Your task to perform on an android device: turn on showing notifications on the lock screen Image 0: 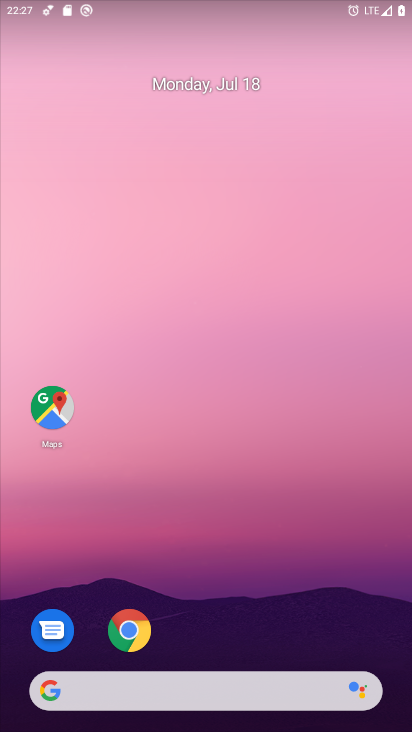
Step 0: drag from (207, 557) to (219, 22)
Your task to perform on an android device: turn on showing notifications on the lock screen Image 1: 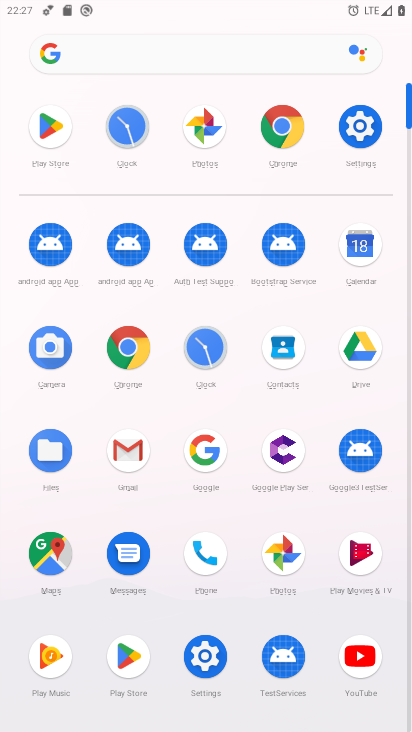
Step 1: click (356, 108)
Your task to perform on an android device: turn on showing notifications on the lock screen Image 2: 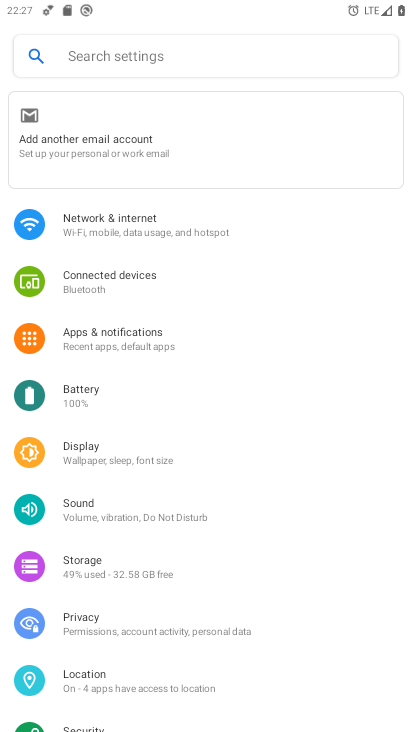
Step 2: click (125, 325)
Your task to perform on an android device: turn on showing notifications on the lock screen Image 3: 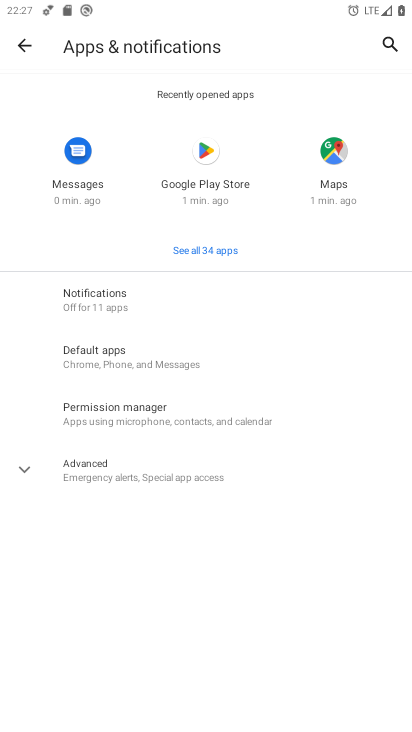
Step 3: click (181, 324)
Your task to perform on an android device: turn on showing notifications on the lock screen Image 4: 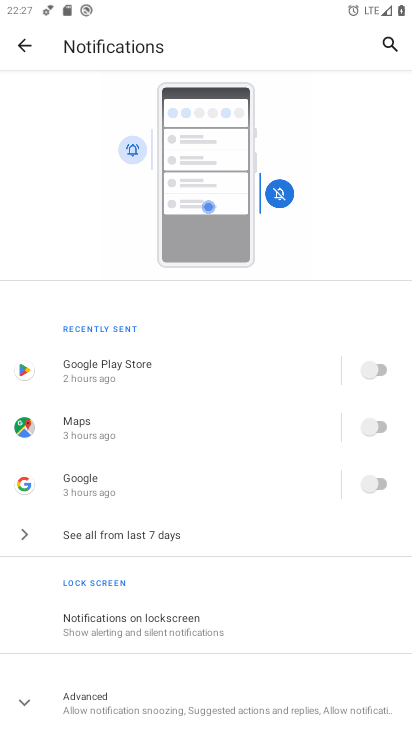
Step 4: click (164, 612)
Your task to perform on an android device: turn on showing notifications on the lock screen Image 5: 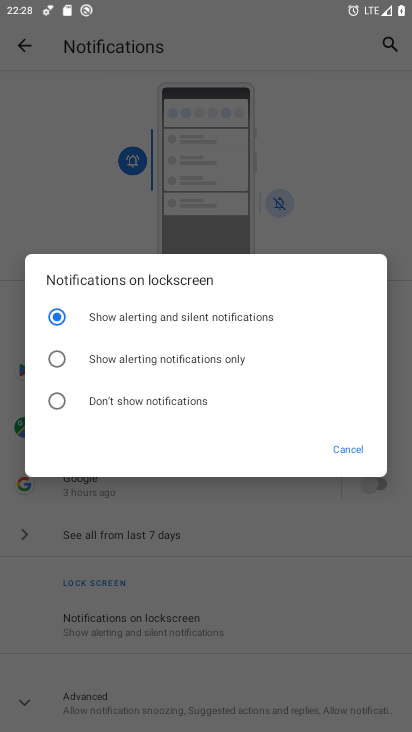
Step 5: task complete